Your task to perform on an android device: turn off smart reply in the gmail app Image 0: 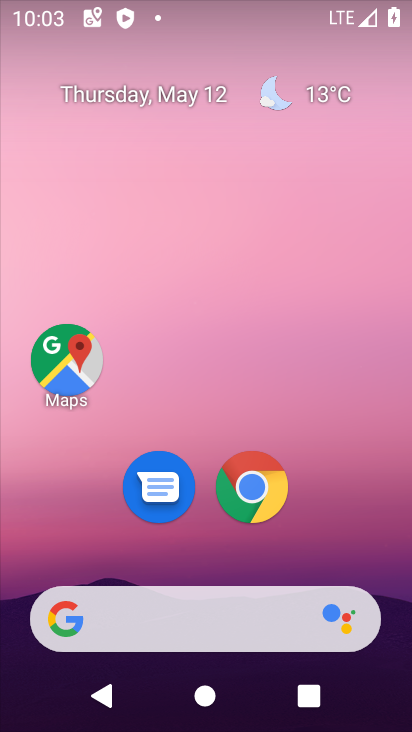
Step 0: press home button
Your task to perform on an android device: turn off smart reply in the gmail app Image 1: 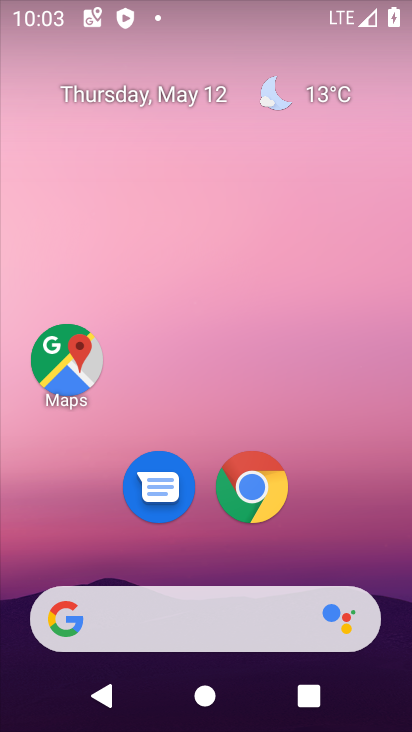
Step 1: drag from (396, 477) to (409, 561)
Your task to perform on an android device: turn off smart reply in the gmail app Image 2: 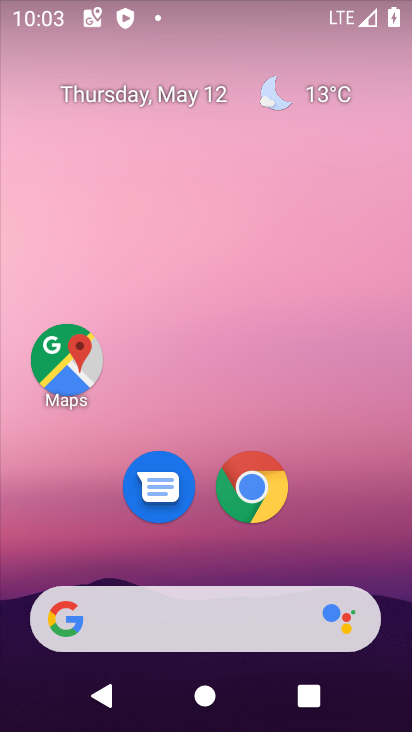
Step 2: drag from (390, 580) to (408, 431)
Your task to perform on an android device: turn off smart reply in the gmail app Image 3: 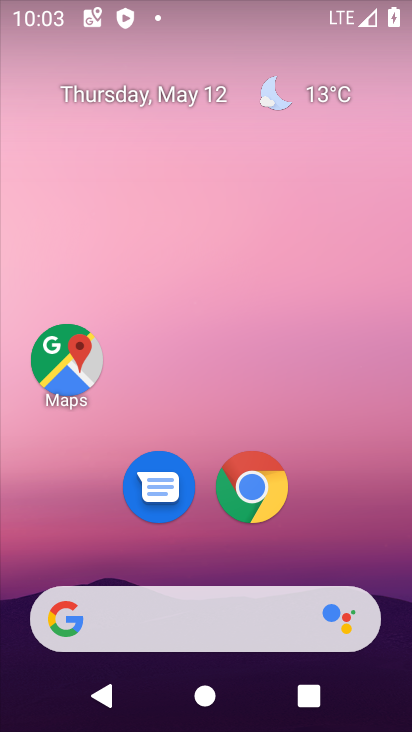
Step 3: drag from (371, 530) to (362, 0)
Your task to perform on an android device: turn off smart reply in the gmail app Image 4: 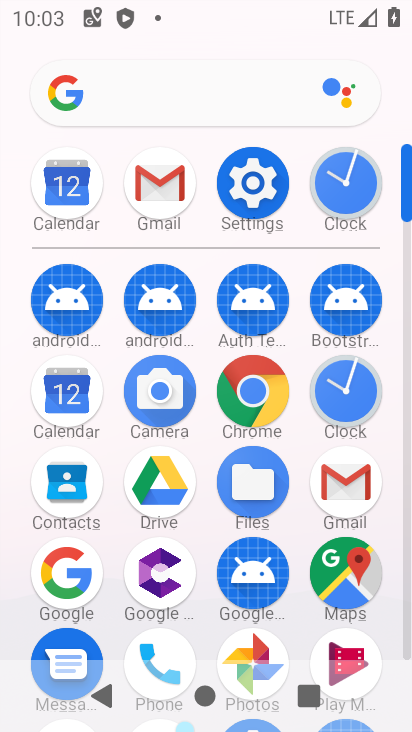
Step 4: click (160, 197)
Your task to perform on an android device: turn off smart reply in the gmail app Image 5: 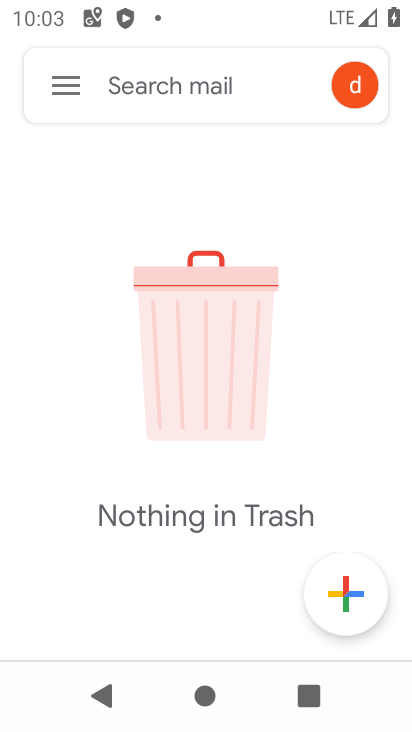
Step 5: click (68, 92)
Your task to perform on an android device: turn off smart reply in the gmail app Image 6: 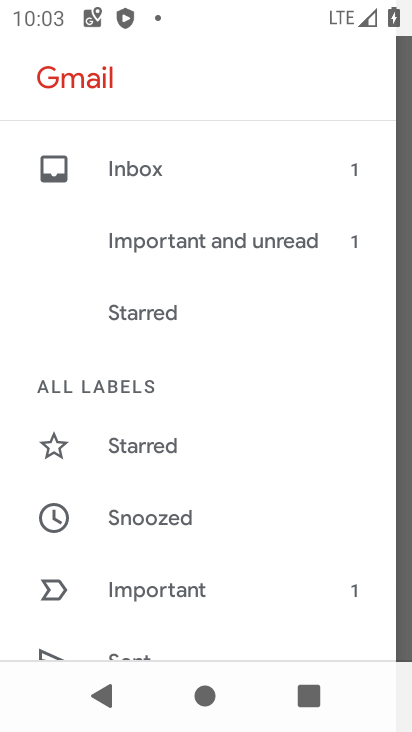
Step 6: drag from (238, 578) to (220, 219)
Your task to perform on an android device: turn off smart reply in the gmail app Image 7: 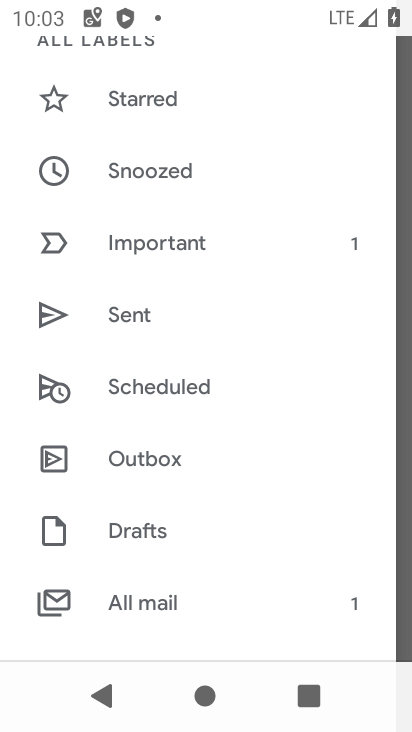
Step 7: drag from (242, 587) to (208, 165)
Your task to perform on an android device: turn off smart reply in the gmail app Image 8: 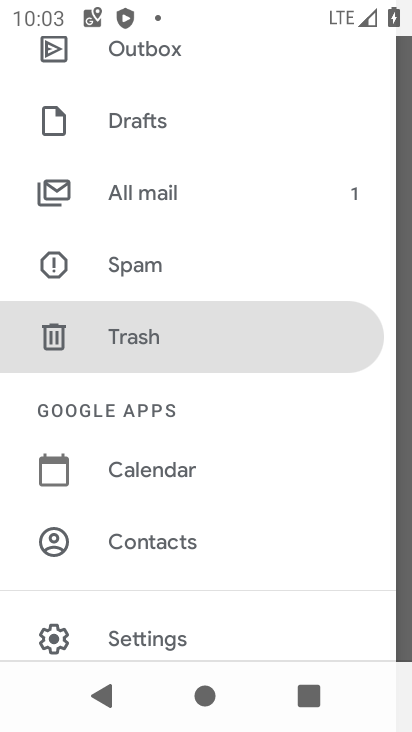
Step 8: click (171, 639)
Your task to perform on an android device: turn off smart reply in the gmail app Image 9: 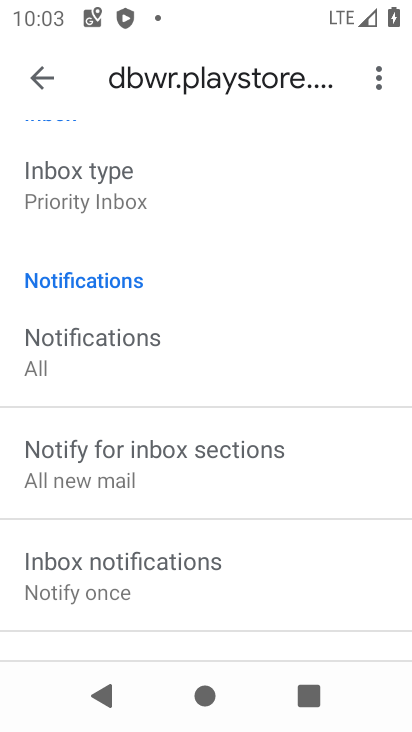
Step 9: drag from (209, 567) to (221, 273)
Your task to perform on an android device: turn off smart reply in the gmail app Image 10: 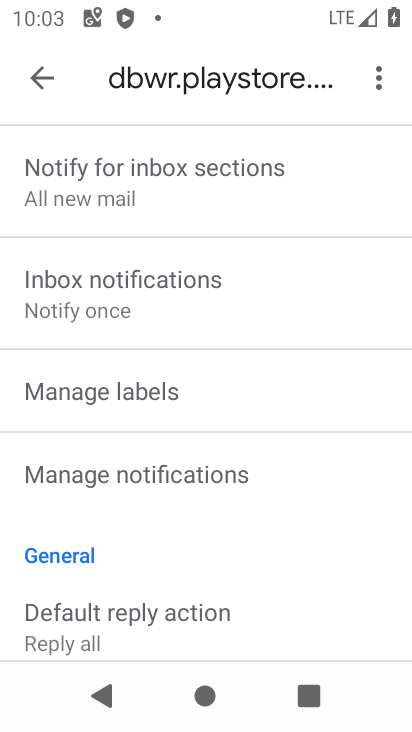
Step 10: drag from (205, 529) to (213, 148)
Your task to perform on an android device: turn off smart reply in the gmail app Image 11: 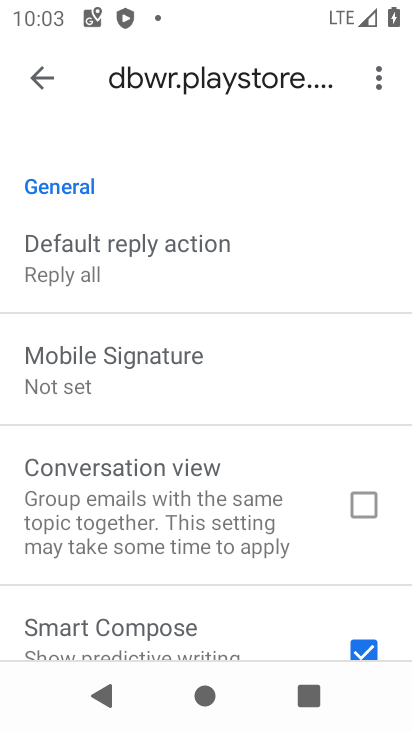
Step 11: drag from (186, 492) to (196, 142)
Your task to perform on an android device: turn off smart reply in the gmail app Image 12: 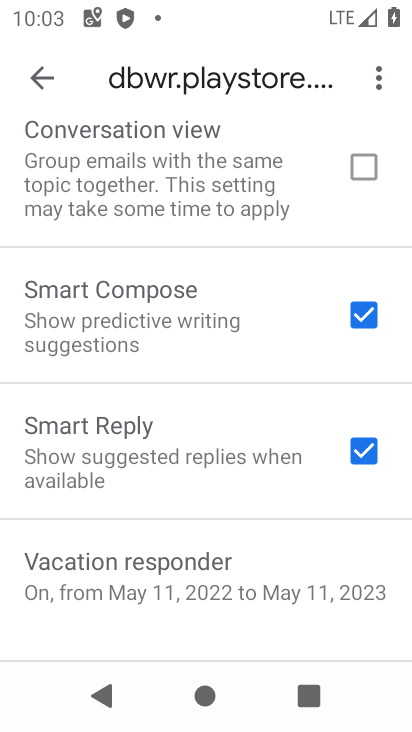
Step 12: click (364, 456)
Your task to perform on an android device: turn off smart reply in the gmail app Image 13: 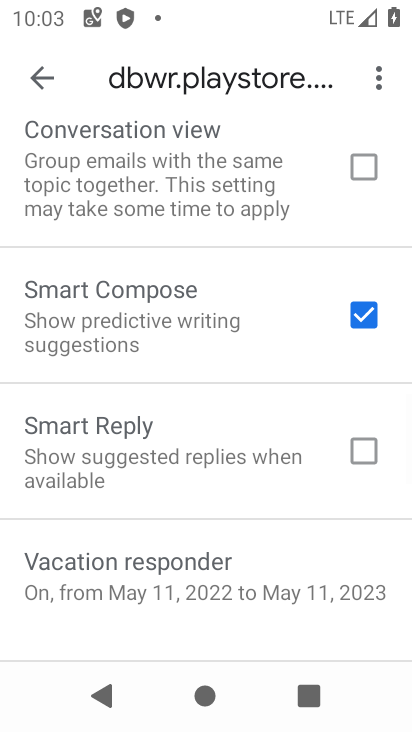
Step 13: task complete